Your task to perform on an android device: turn on data saver in the chrome app Image 0: 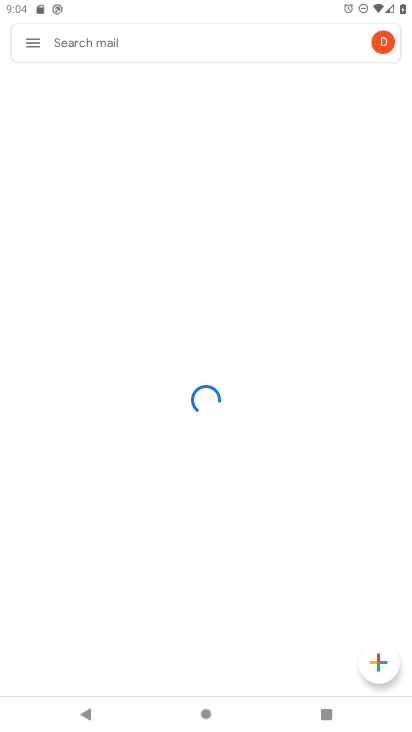
Step 0: press home button
Your task to perform on an android device: turn on data saver in the chrome app Image 1: 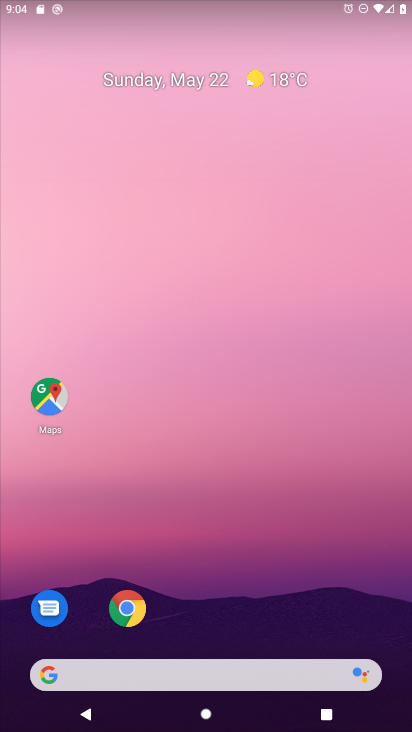
Step 1: click (129, 612)
Your task to perform on an android device: turn on data saver in the chrome app Image 2: 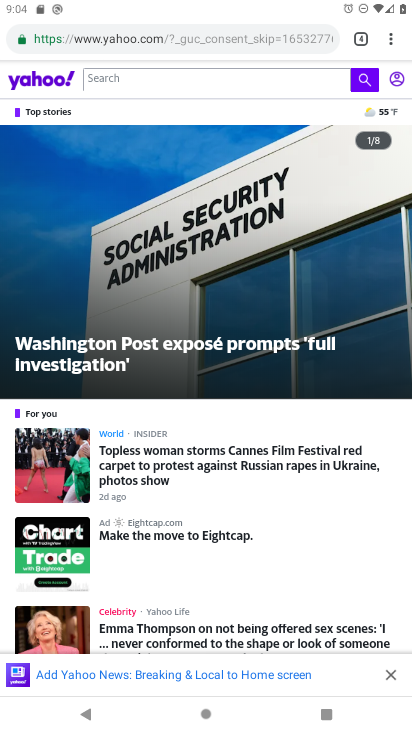
Step 2: click (390, 40)
Your task to perform on an android device: turn on data saver in the chrome app Image 3: 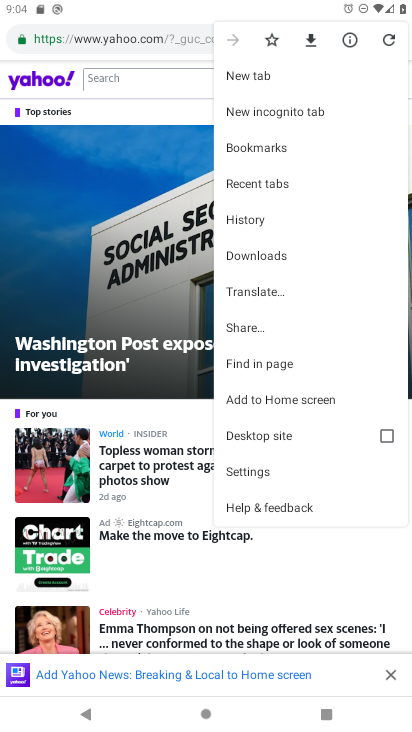
Step 3: click (256, 470)
Your task to perform on an android device: turn on data saver in the chrome app Image 4: 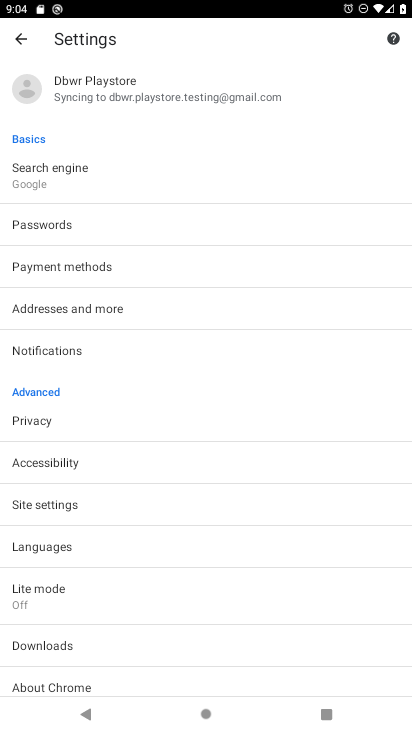
Step 4: click (38, 594)
Your task to perform on an android device: turn on data saver in the chrome app Image 5: 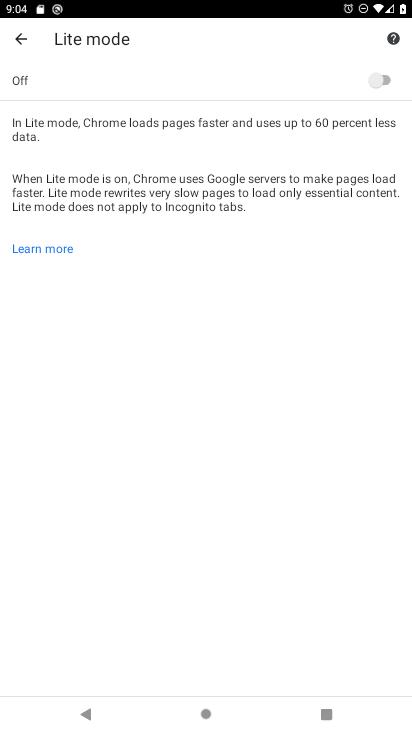
Step 5: click (384, 77)
Your task to perform on an android device: turn on data saver in the chrome app Image 6: 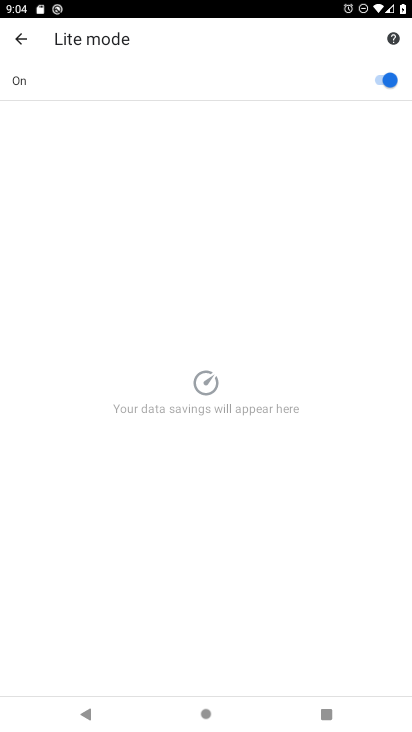
Step 6: task complete